Your task to perform on an android device: Go to calendar. Show me events next week Image 0: 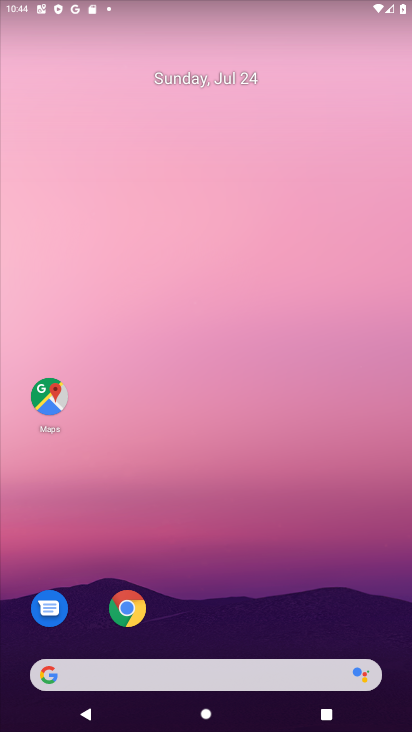
Step 0: press home button
Your task to perform on an android device: Go to calendar. Show me events next week Image 1: 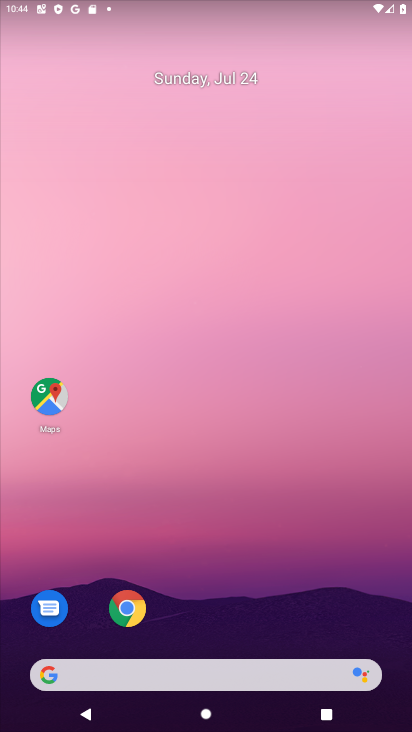
Step 1: drag from (204, 628) to (264, 12)
Your task to perform on an android device: Go to calendar. Show me events next week Image 2: 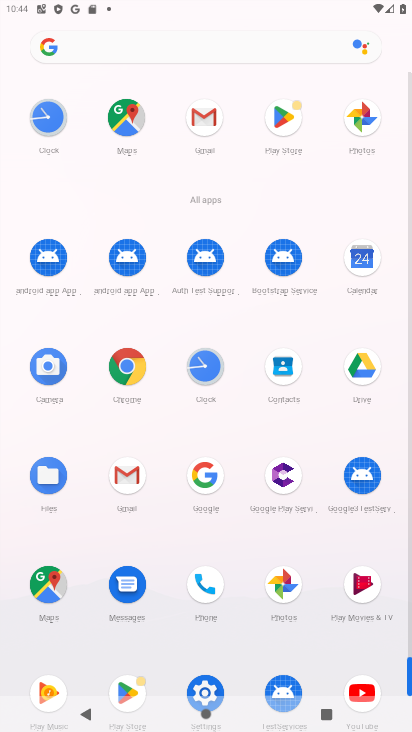
Step 2: click (361, 253)
Your task to perform on an android device: Go to calendar. Show me events next week Image 3: 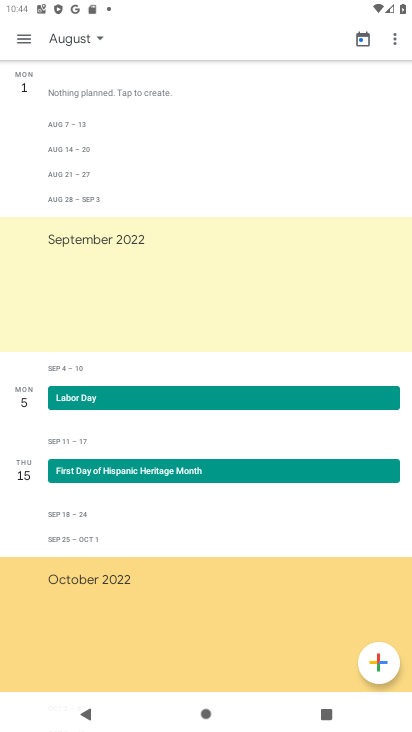
Step 3: click (97, 39)
Your task to perform on an android device: Go to calendar. Show me events next week Image 4: 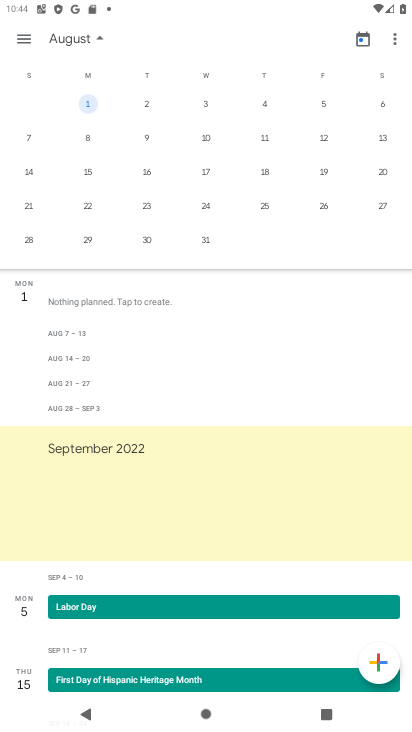
Step 4: drag from (54, 164) to (409, 170)
Your task to perform on an android device: Go to calendar. Show me events next week Image 5: 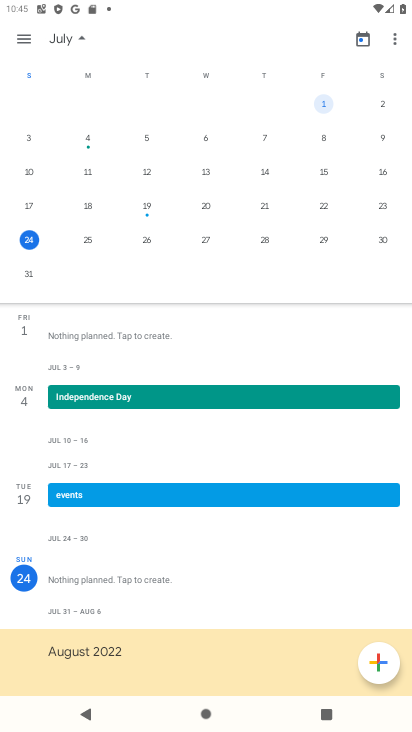
Step 5: click (20, 28)
Your task to perform on an android device: Go to calendar. Show me events next week Image 6: 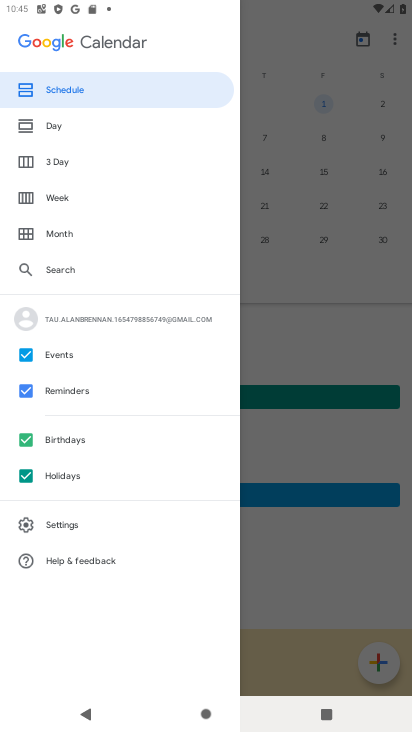
Step 6: click (62, 193)
Your task to perform on an android device: Go to calendar. Show me events next week Image 7: 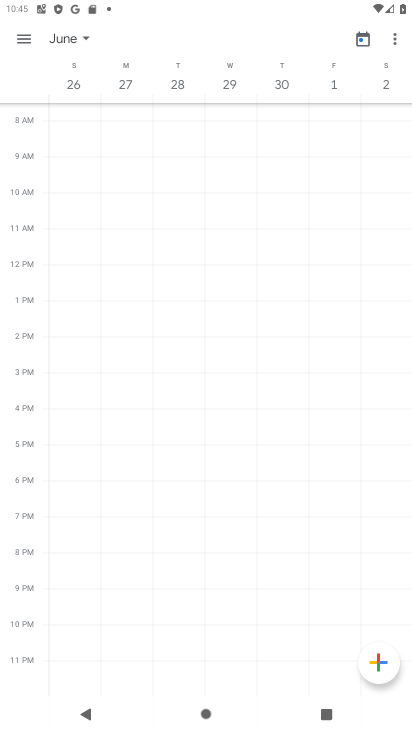
Step 7: drag from (368, 81) to (1, 82)
Your task to perform on an android device: Go to calendar. Show me events next week Image 8: 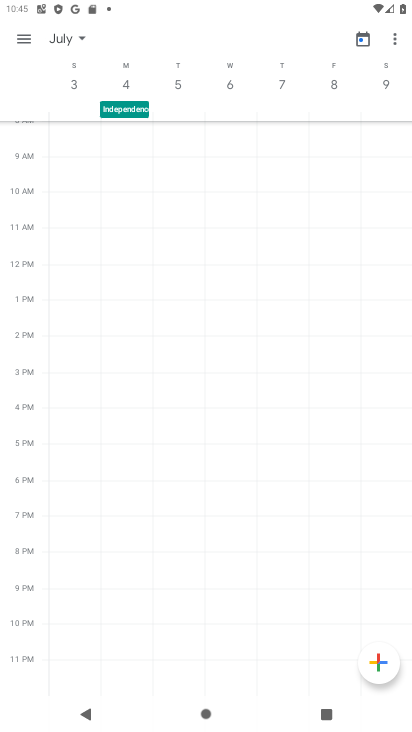
Step 8: drag from (383, 78) to (1, 64)
Your task to perform on an android device: Go to calendar. Show me events next week Image 9: 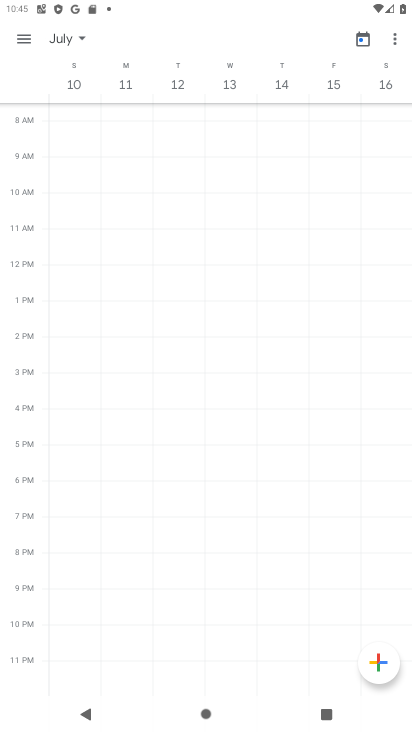
Step 9: drag from (380, 77) to (8, 85)
Your task to perform on an android device: Go to calendar. Show me events next week Image 10: 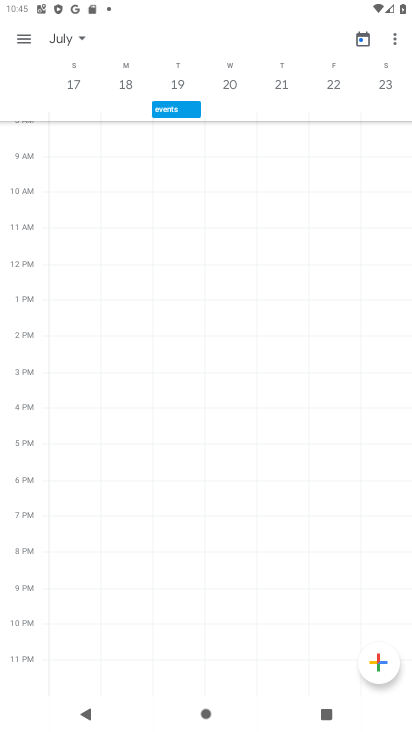
Step 10: drag from (394, 88) to (6, 92)
Your task to perform on an android device: Go to calendar. Show me events next week Image 11: 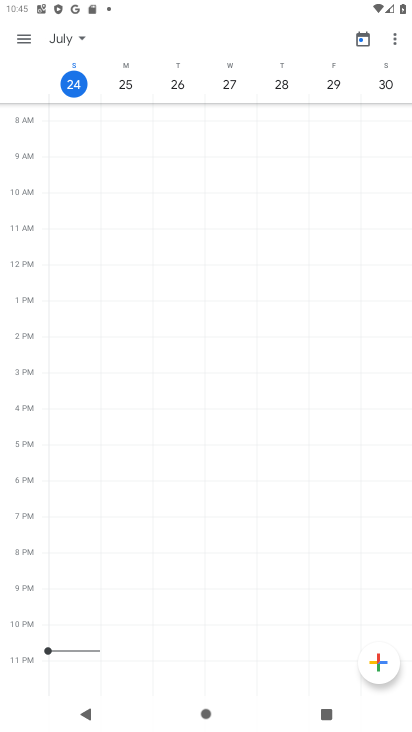
Step 11: drag from (381, 77) to (0, 81)
Your task to perform on an android device: Go to calendar. Show me events next week Image 12: 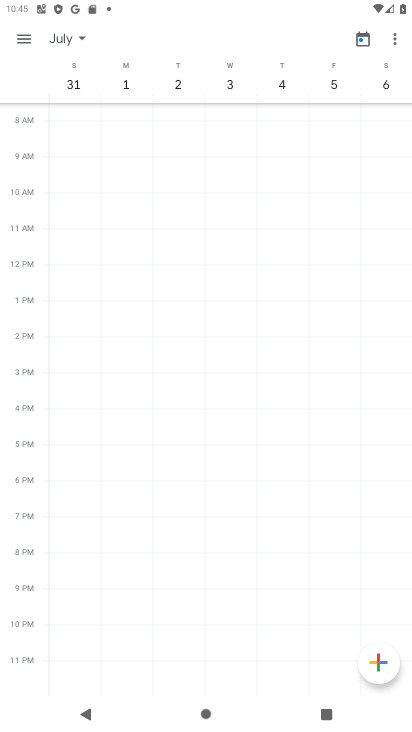
Step 12: click (119, 78)
Your task to perform on an android device: Go to calendar. Show me events next week Image 13: 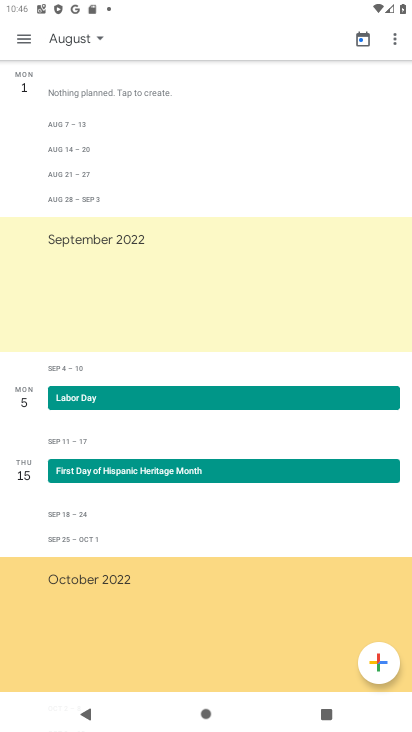
Step 13: task complete